Your task to perform on an android device: View the shopping cart on bestbuy.com. Search for macbook pro on bestbuy.com, select the first entry, and add it to the cart. Image 0: 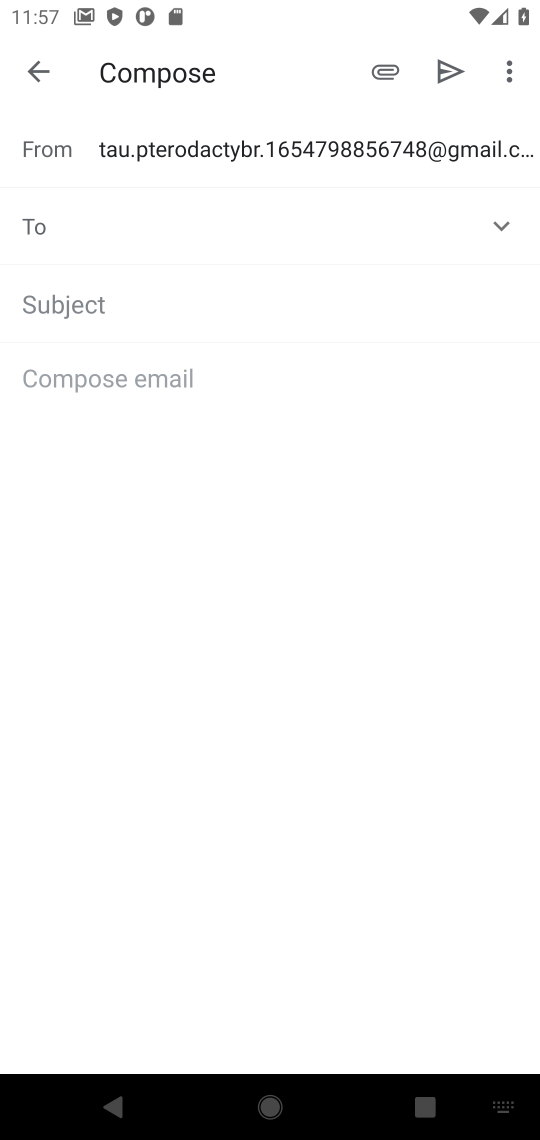
Step 0: press home button
Your task to perform on an android device: View the shopping cart on bestbuy.com. Search for macbook pro on bestbuy.com, select the first entry, and add it to the cart. Image 1: 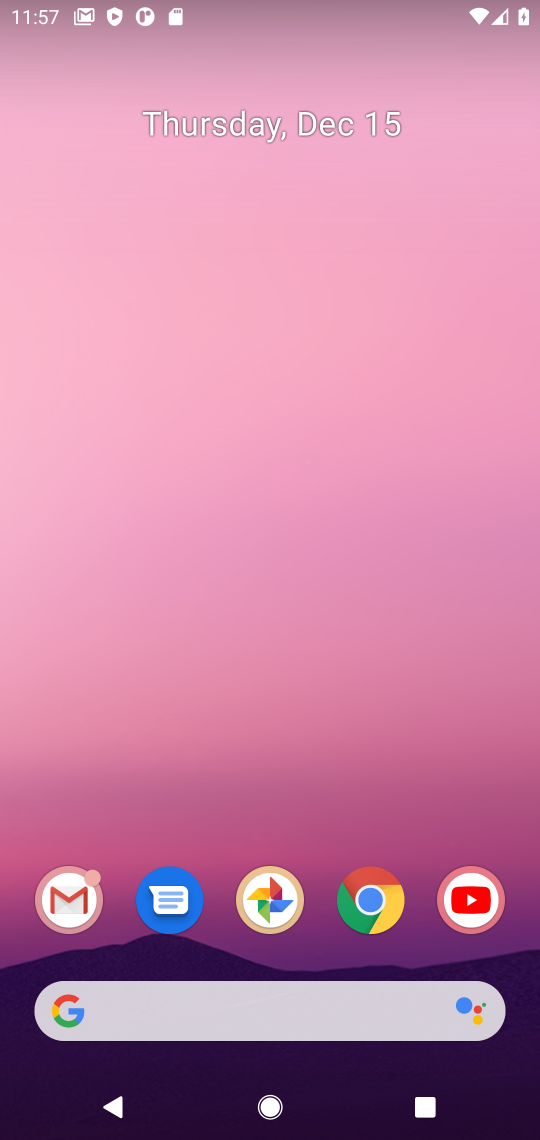
Step 1: click (373, 899)
Your task to perform on an android device: View the shopping cart on bestbuy.com. Search for macbook pro on bestbuy.com, select the first entry, and add it to the cart. Image 2: 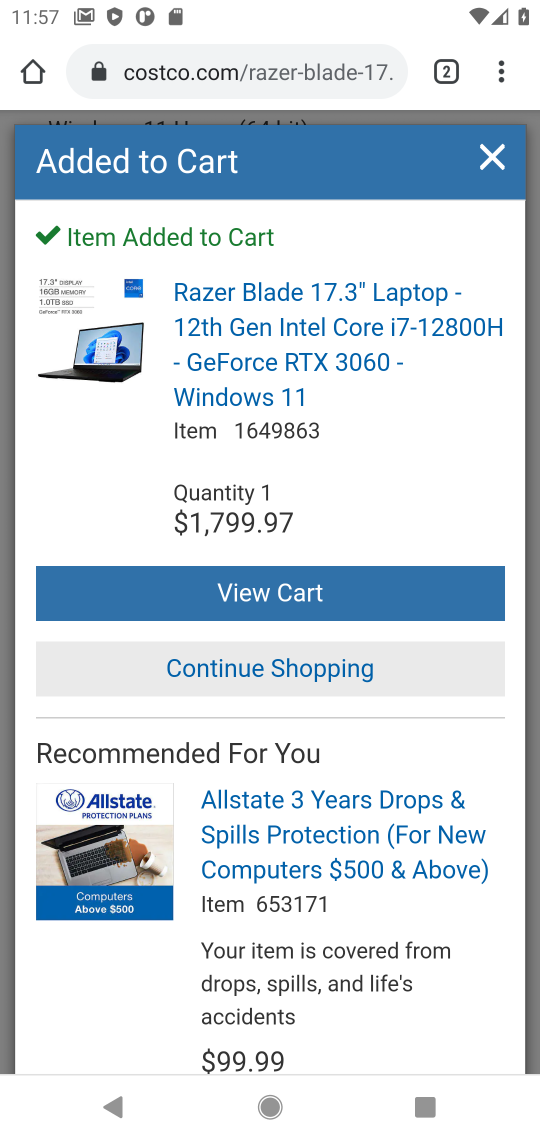
Step 2: click (346, 78)
Your task to perform on an android device: View the shopping cart on bestbuy.com. Search for macbook pro on bestbuy.com, select the first entry, and add it to the cart. Image 3: 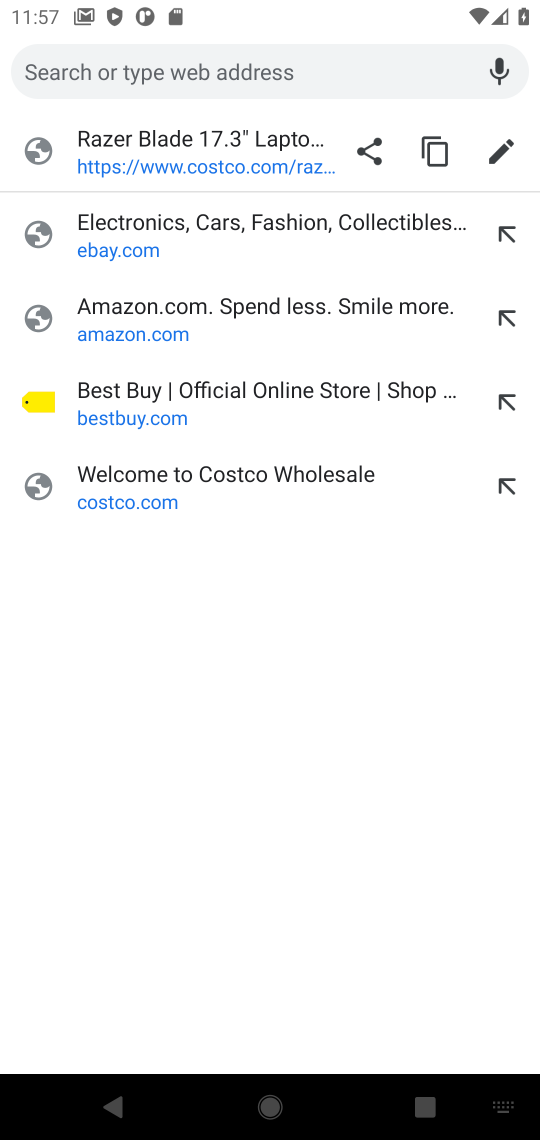
Step 3: click (140, 386)
Your task to perform on an android device: View the shopping cart on bestbuy.com. Search for macbook pro on bestbuy.com, select the first entry, and add it to the cart. Image 4: 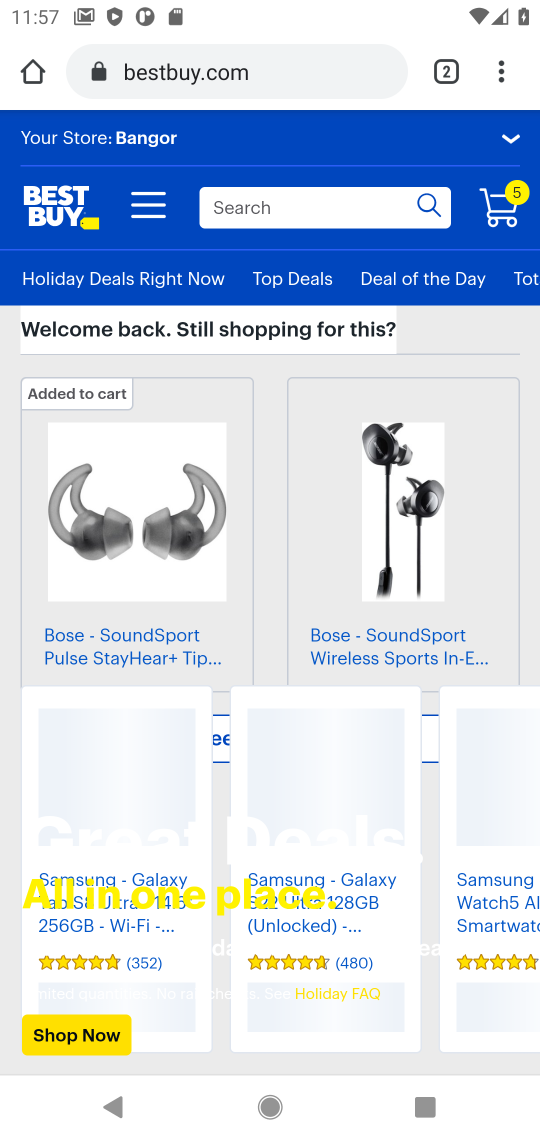
Step 4: click (505, 213)
Your task to perform on an android device: View the shopping cart on bestbuy.com. Search for macbook pro on bestbuy.com, select the first entry, and add it to the cart. Image 5: 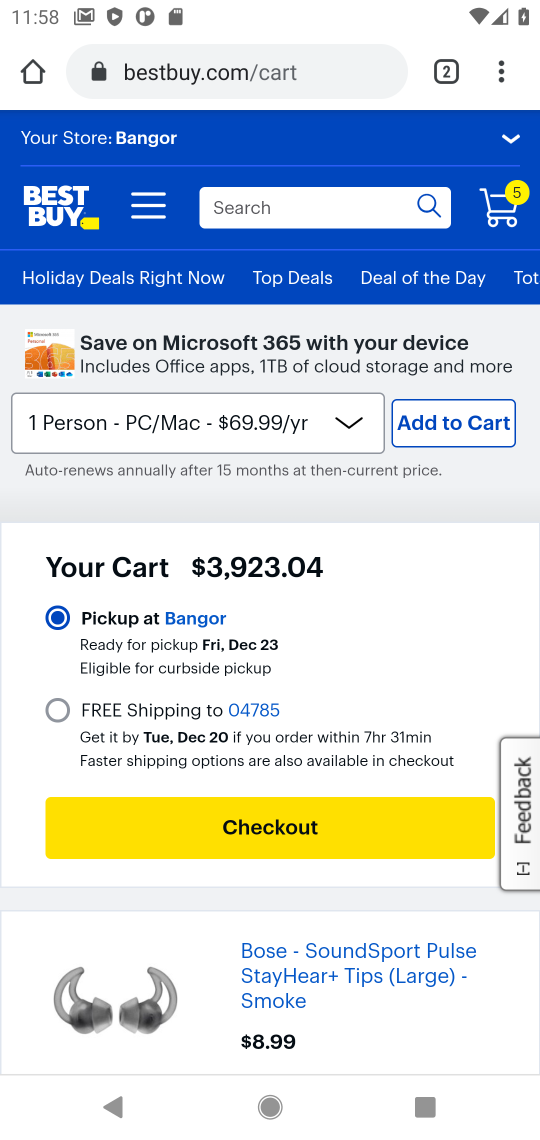
Step 5: click (377, 203)
Your task to perform on an android device: View the shopping cart on bestbuy.com. Search for macbook pro on bestbuy.com, select the first entry, and add it to the cart. Image 6: 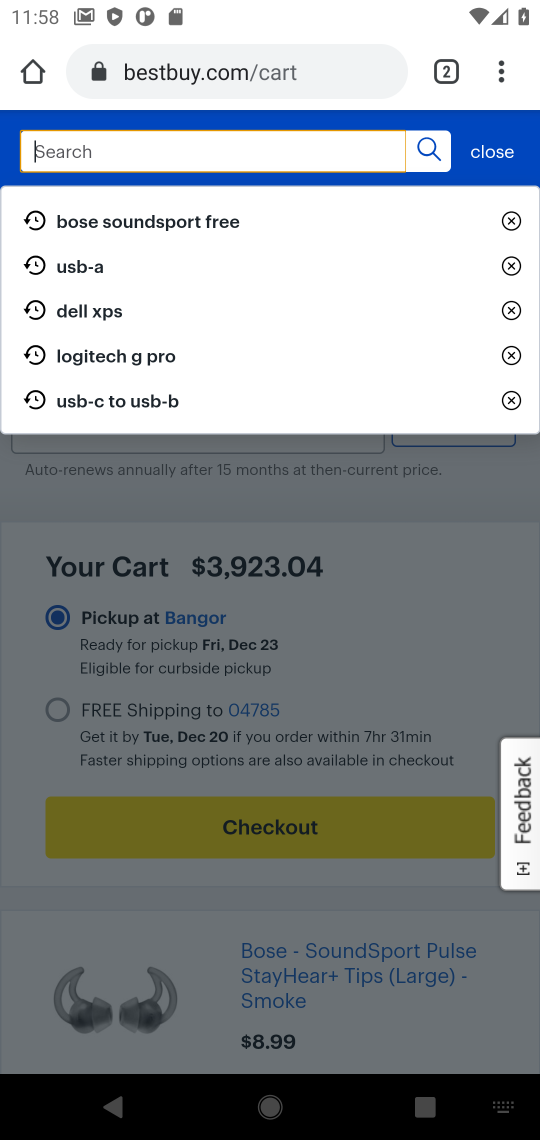
Step 6: press enter
Your task to perform on an android device: View the shopping cart on bestbuy.com. Search for macbook pro on bestbuy.com, select the first entry, and add it to the cart. Image 7: 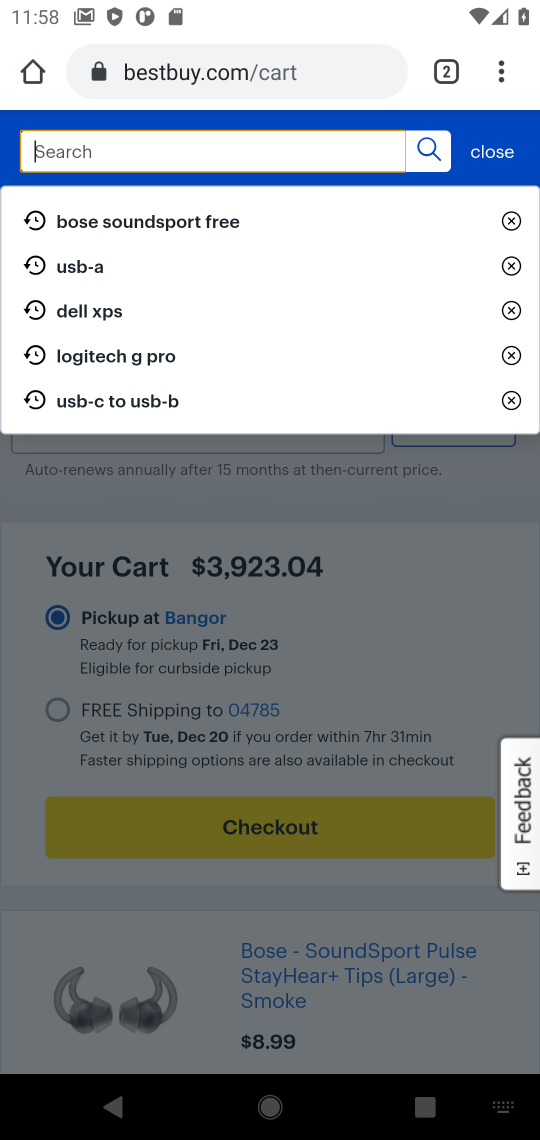
Step 7: type "macbook pro"
Your task to perform on an android device: View the shopping cart on bestbuy.com. Search for macbook pro on bestbuy.com, select the first entry, and add it to the cart. Image 8: 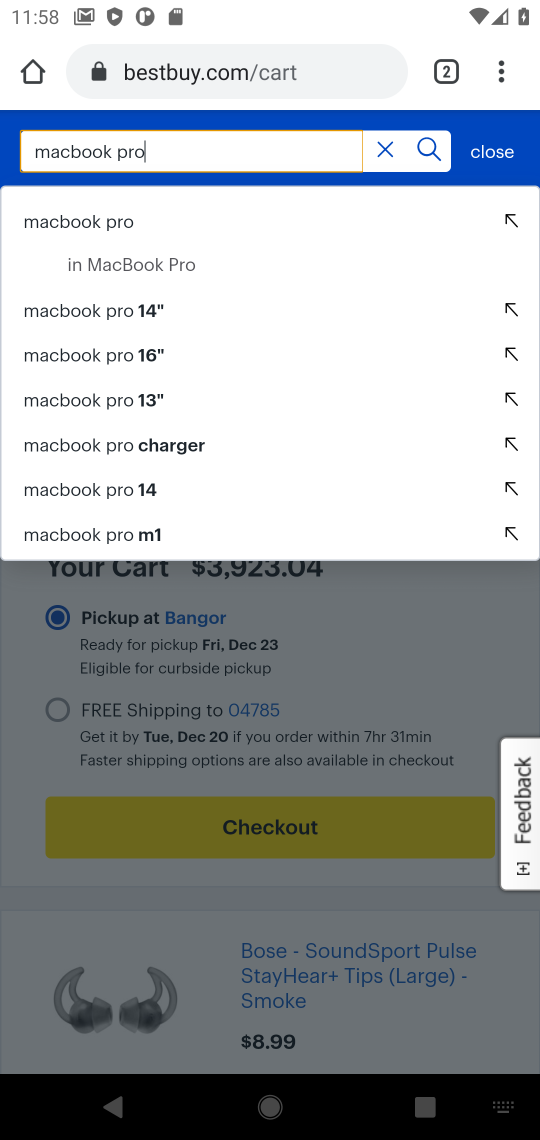
Step 8: click (111, 216)
Your task to perform on an android device: View the shopping cart on bestbuy.com. Search for macbook pro on bestbuy.com, select the first entry, and add it to the cart. Image 9: 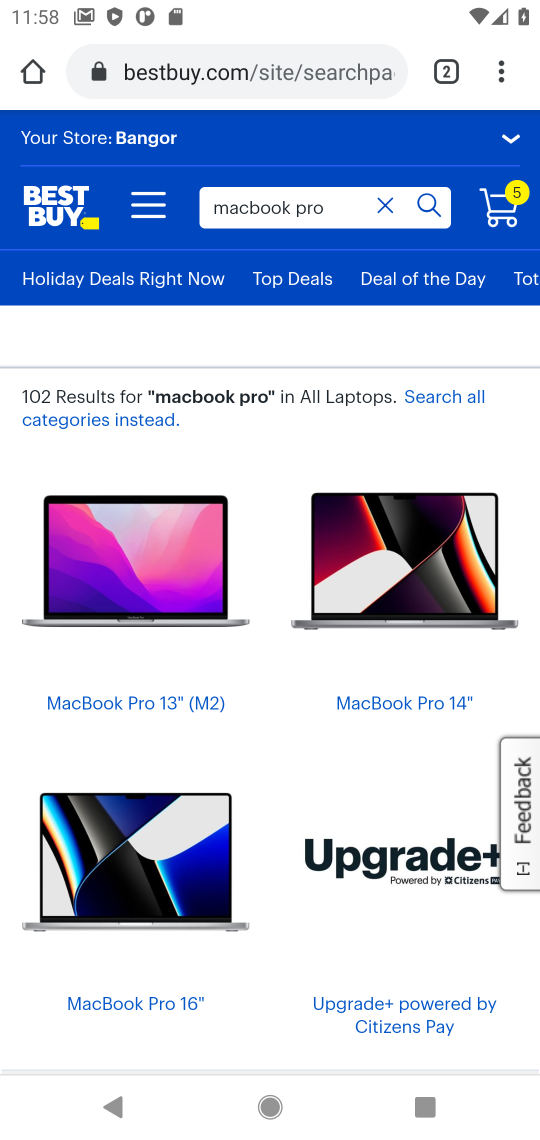
Step 9: drag from (351, 796) to (354, 460)
Your task to perform on an android device: View the shopping cart on bestbuy.com. Search for macbook pro on bestbuy.com, select the first entry, and add it to the cart. Image 10: 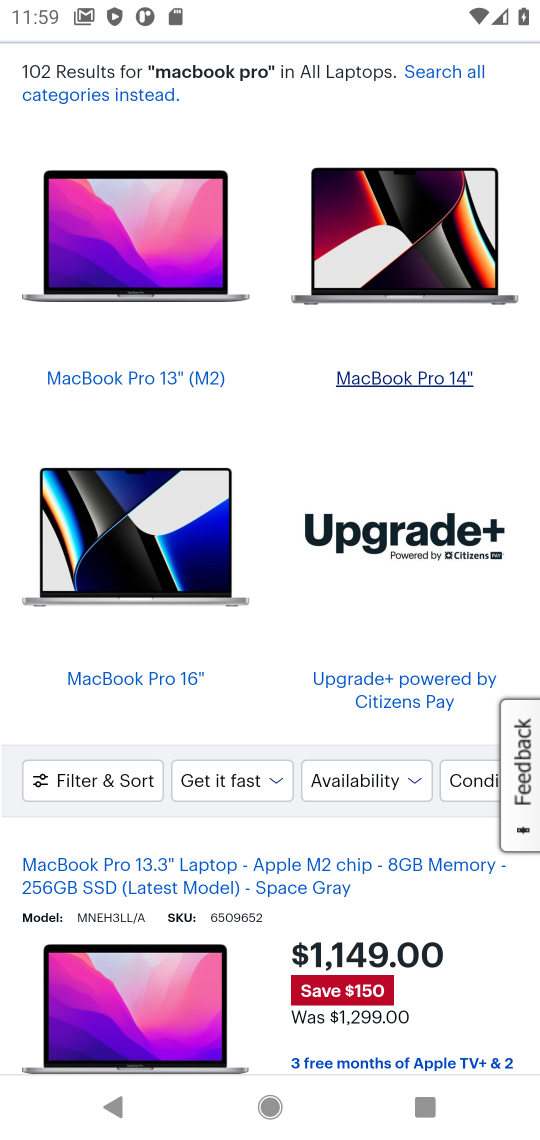
Step 10: drag from (166, 922) to (206, 716)
Your task to perform on an android device: View the shopping cart on bestbuy.com. Search for macbook pro on bestbuy.com, select the first entry, and add it to the cart. Image 11: 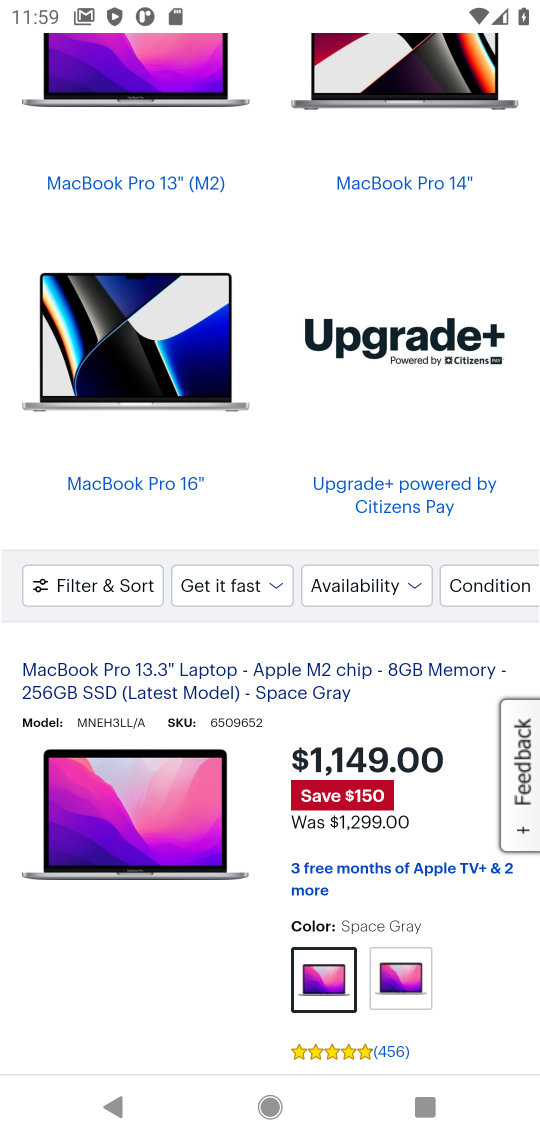
Step 11: drag from (193, 882) to (257, 329)
Your task to perform on an android device: View the shopping cart on bestbuy.com. Search for macbook pro on bestbuy.com, select the first entry, and add it to the cart. Image 12: 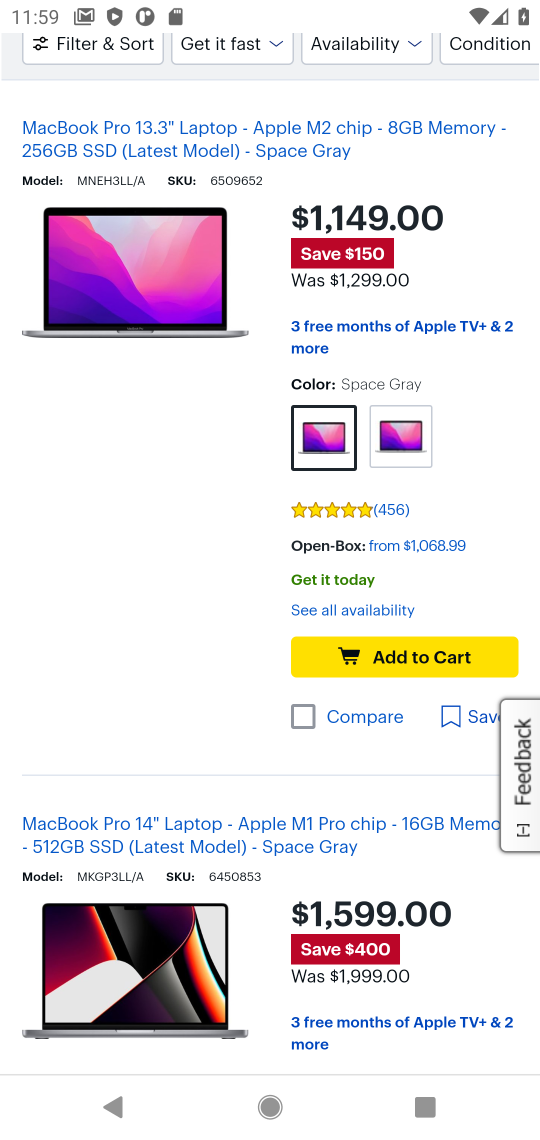
Step 12: drag from (255, 337) to (242, 1107)
Your task to perform on an android device: View the shopping cart on bestbuy.com. Search for macbook pro on bestbuy.com, select the first entry, and add it to the cart. Image 13: 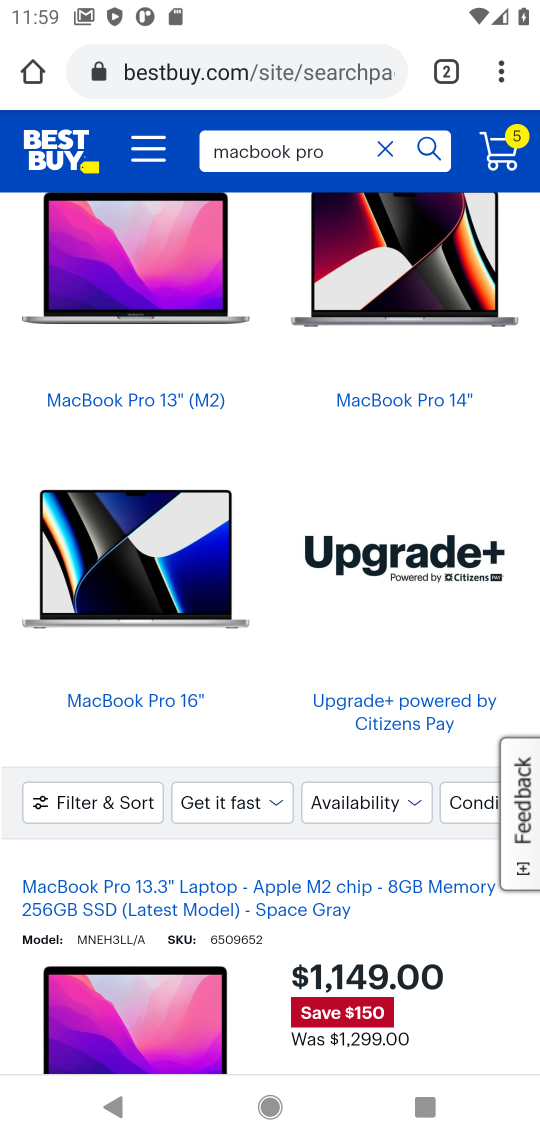
Step 13: drag from (265, 598) to (296, 922)
Your task to perform on an android device: View the shopping cart on bestbuy.com. Search for macbook pro on bestbuy.com, select the first entry, and add it to the cart. Image 14: 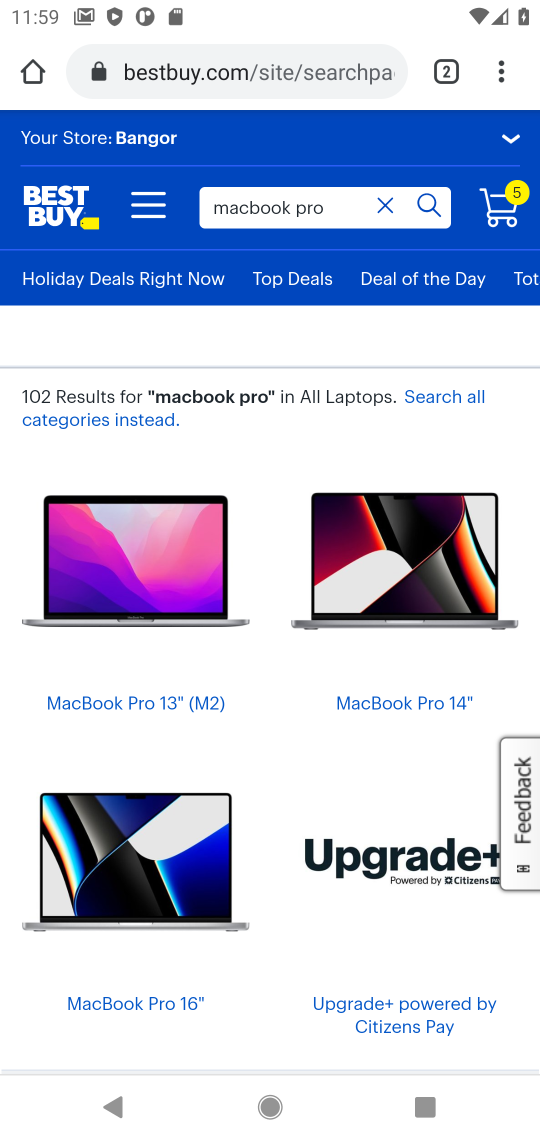
Step 14: click (141, 551)
Your task to perform on an android device: View the shopping cart on bestbuy.com. Search for macbook pro on bestbuy.com, select the first entry, and add it to the cart. Image 15: 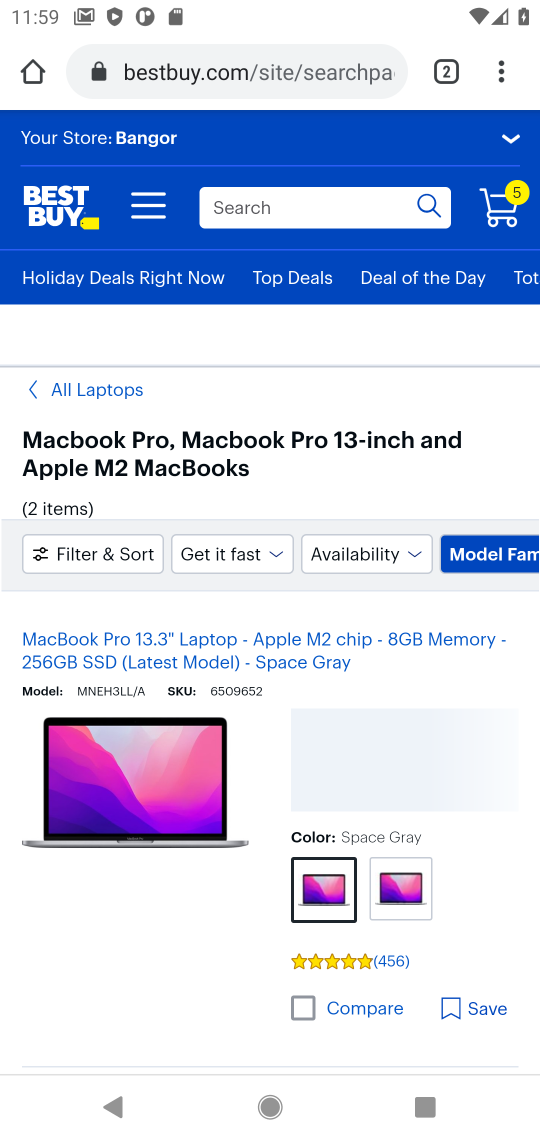
Step 15: drag from (178, 881) to (375, 285)
Your task to perform on an android device: View the shopping cart on bestbuy.com. Search for macbook pro on bestbuy.com, select the first entry, and add it to the cart. Image 16: 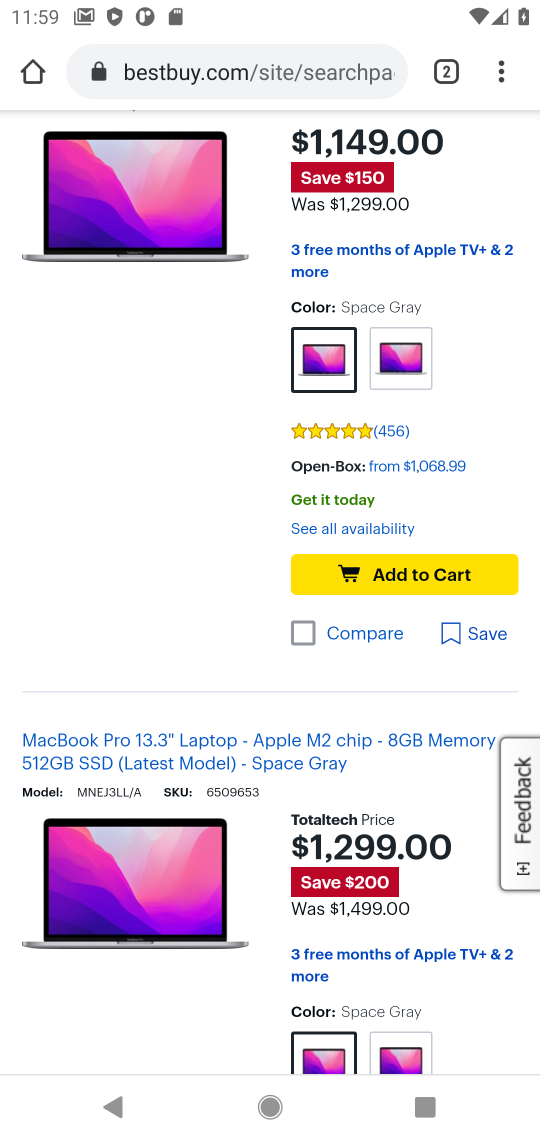
Step 16: click (419, 517)
Your task to perform on an android device: View the shopping cart on bestbuy.com. Search for macbook pro on bestbuy.com, select the first entry, and add it to the cart. Image 17: 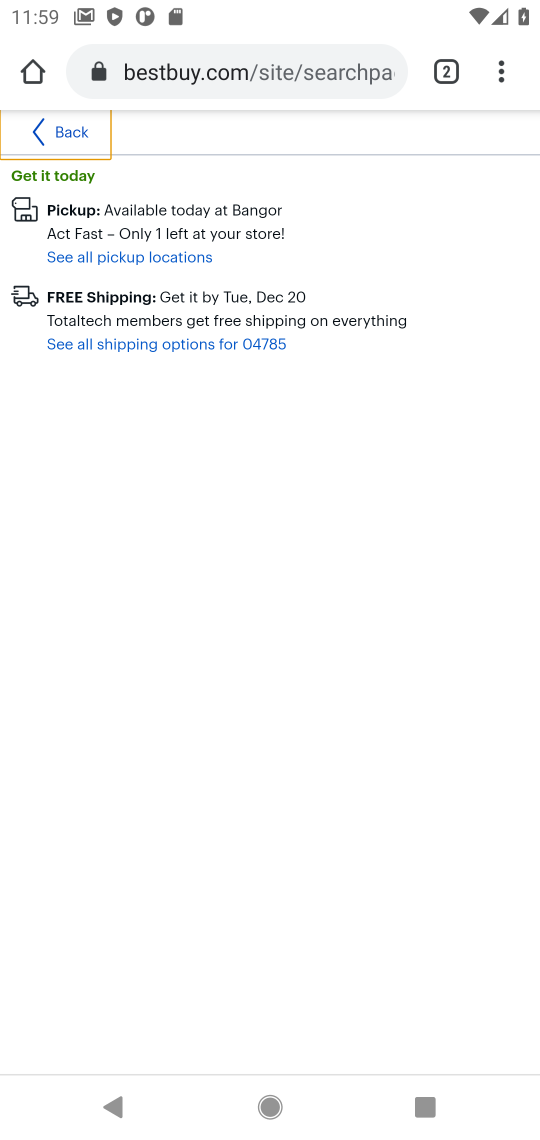
Step 17: press back button
Your task to perform on an android device: View the shopping cart on bestbuy.com. Search for macbook pro on bestbuy.com, select the first entry, and add it to the cart. Image 18: 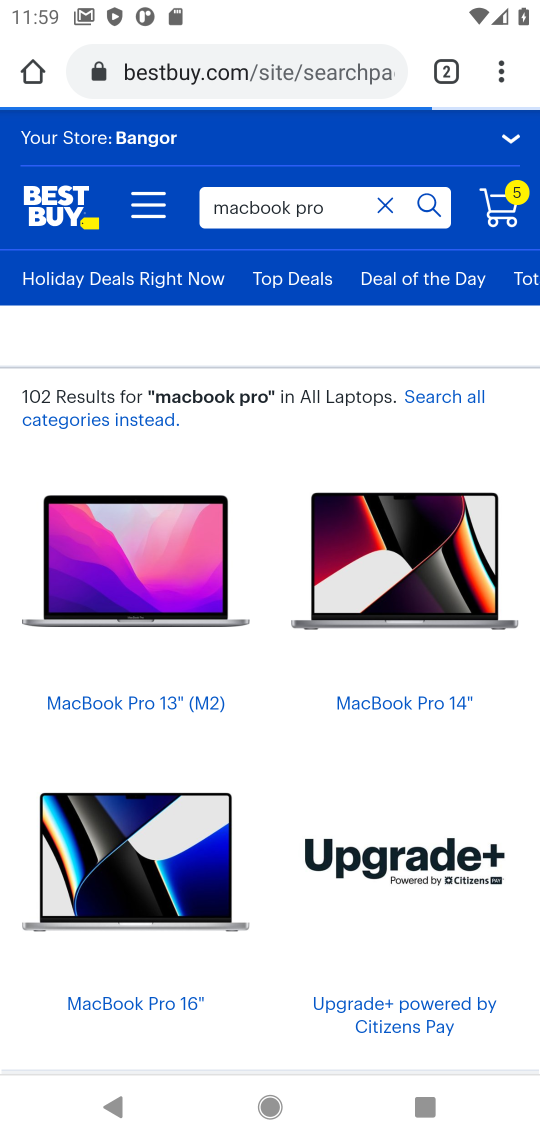
Step 18: click (106, 549)
Your task to perform on an android device: View the shopping cart on bestbuy.com. Search for macbook pro on bestbuy.com, select the first entry, and add it to the cart. Image 19: 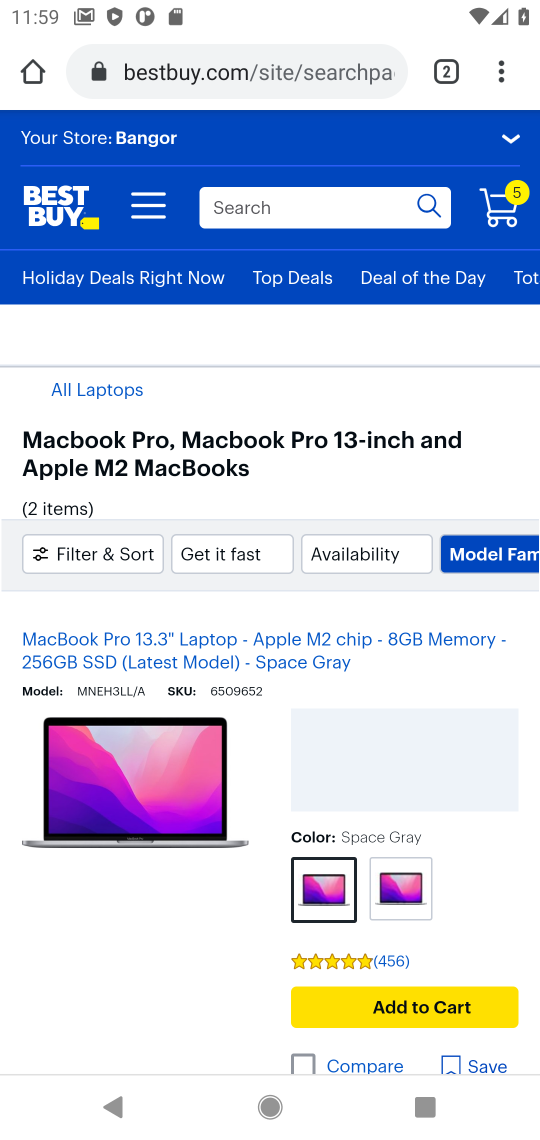
Step 19: drag from (155, 859) to (87, 328)
Your task to perform on an android device: View the shopping cart on bestbuy.com. Search for macbook pro on bestbuy.com, select the first entry, and add it to the cart. Image 20: 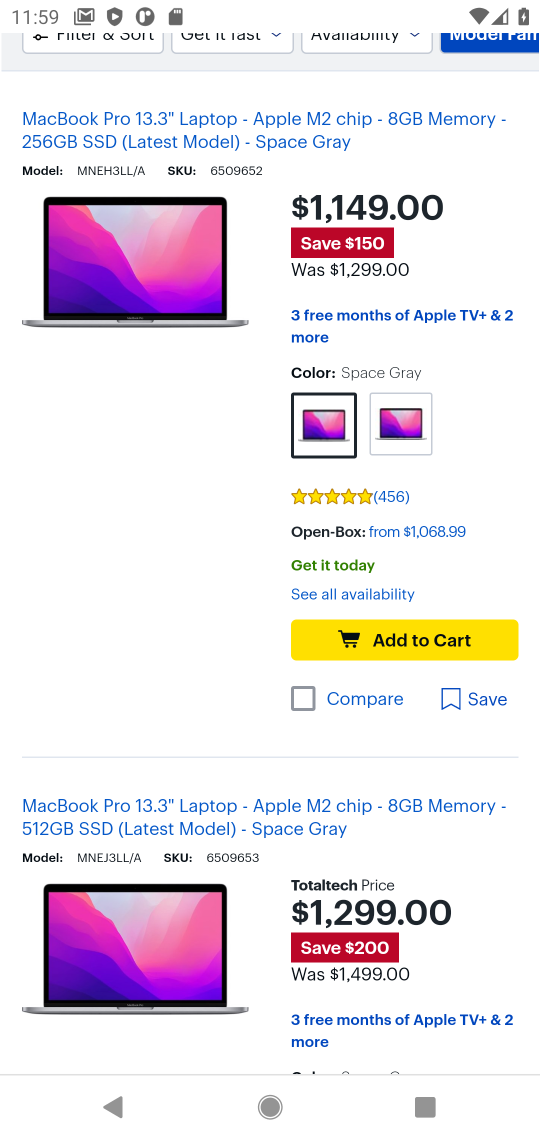
Step 20: click (424, 573)
Your task to perform on an android device: View the shopping cart on bestbuy.com. Search for macbook pro on bestbuy.com, select the first entry, and add it to the cart. Image 21: 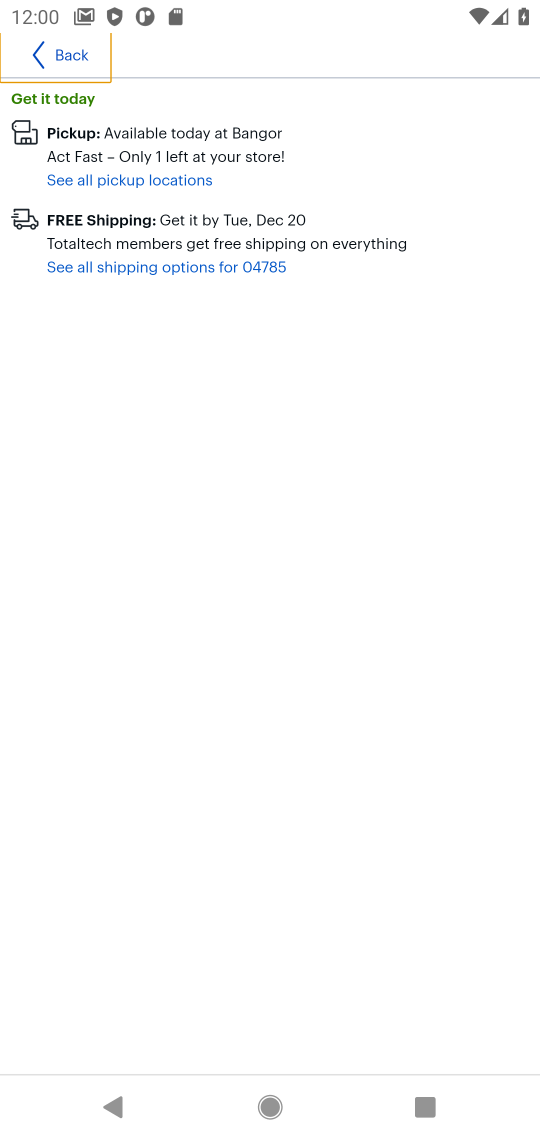
Step 21: press back button
Your task to perform on an android device: View the shopping cart on bestbuy.com. Search for macbook pro on bestbuy.com, select the first entry, and add it to the cart. Image 22: 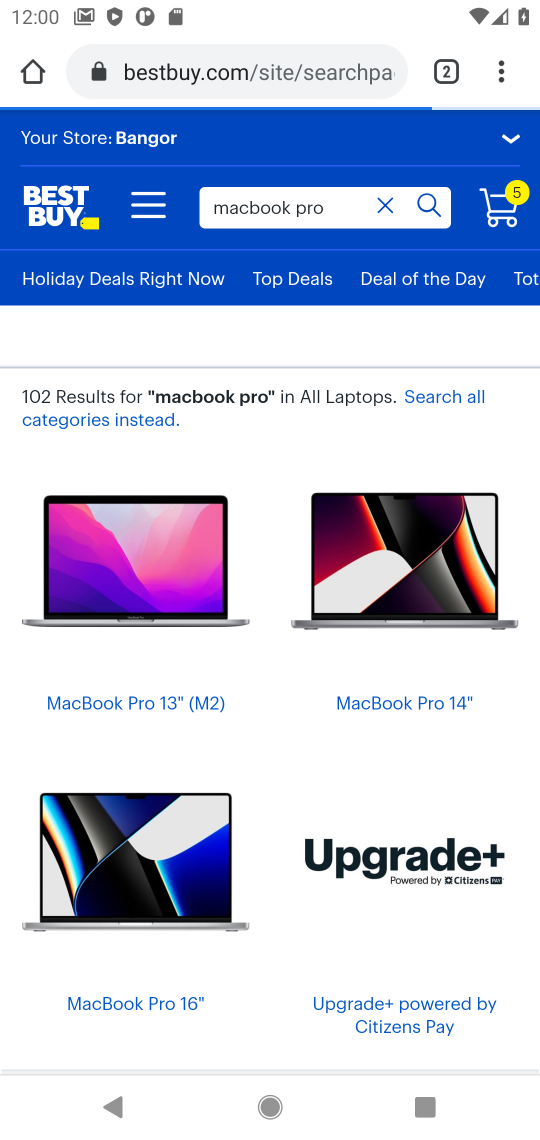
Step 22: click (156, 575)
Your task to perform on an android device: View the shopping cart on bestbuy.com. Search for macbook pro on bestbuy.com, select the first entry, and add it to the cart. Image 23: 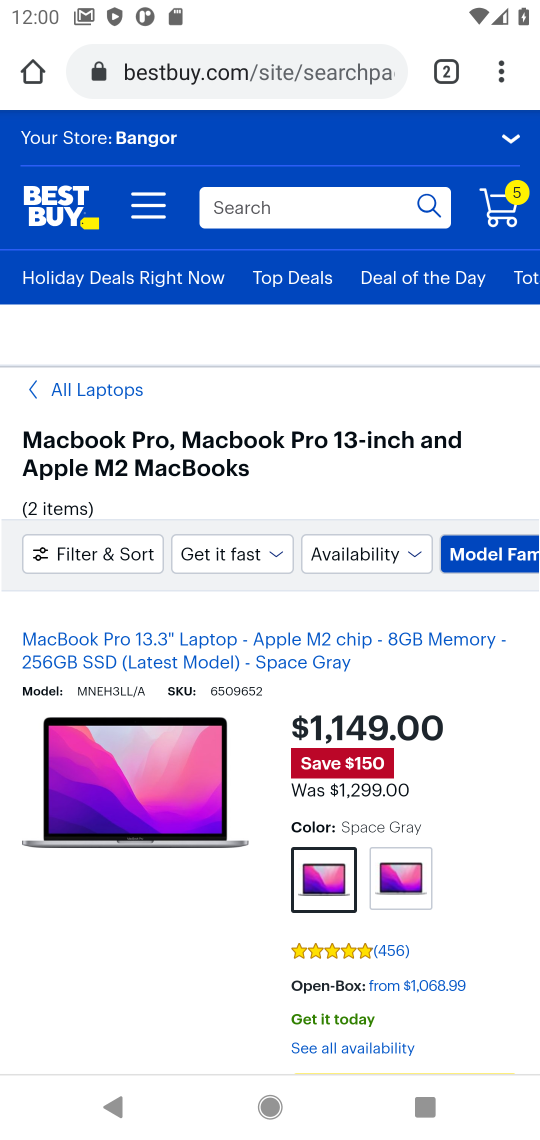
Step 23: drag from (207, 896) to (267, 531)
Your task to perform on an android device: View the shopping cart on bestbuy.com. Search for macbook pro on bestbuy.com, select the first entry, and add it to the cart. Image 24: 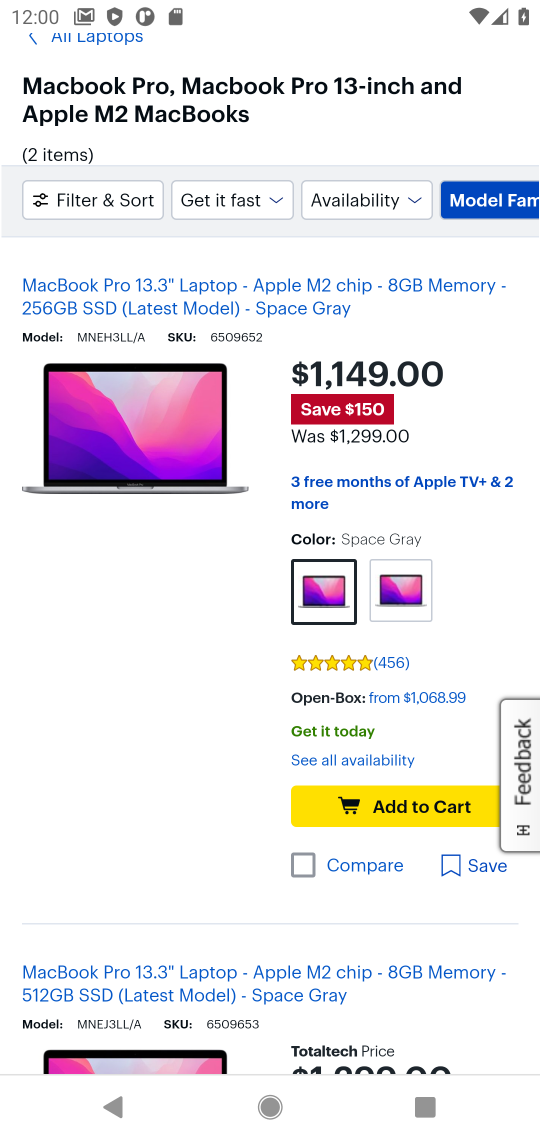
Step 24: click (435, 801)
Your task to perform on an android device: View the shopping cart on bestbuy.com. Search for macbook pro on bestbuy.com, select the first entry, and add it to the cart. Image 25: 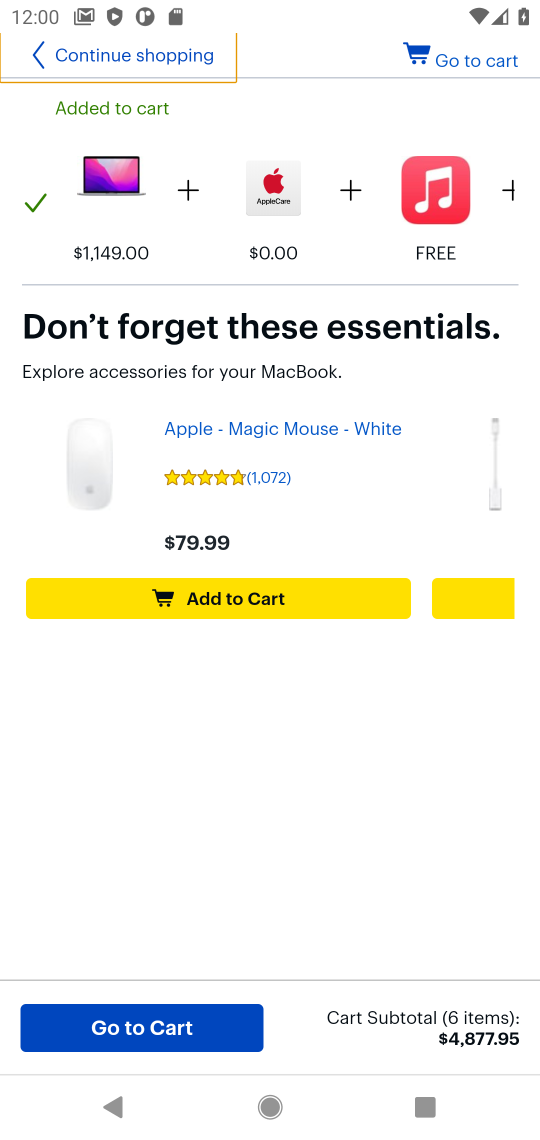
Step 25: click (171, 1012)
Your task to perform on an android device: View the shopping cart on bestbuy.com. Search for macbook pro on bestbuy.com, select the first entry, and add it to the cart. Image 26: 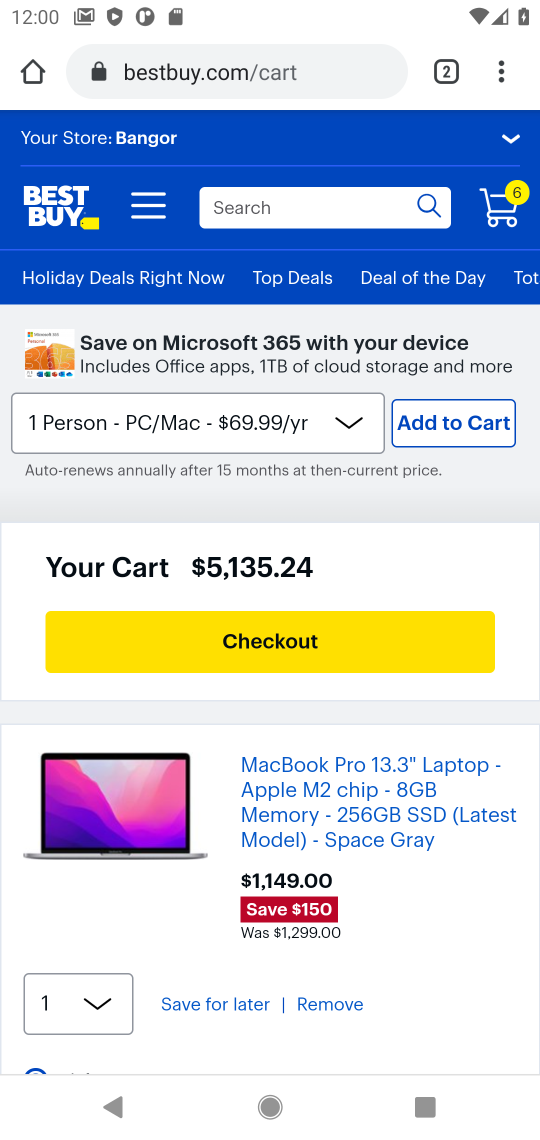
Step 26: task complete